Your task to perform on an android device: turn off translation in the chrome app Image 0: 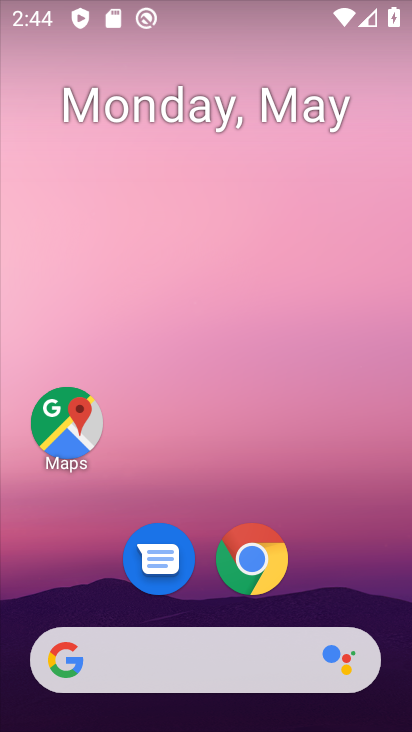
Step 0: drag from (391, 570) to (322, 285)
Your task to perform on an android device: turn off translation in the chrome app Image 1: 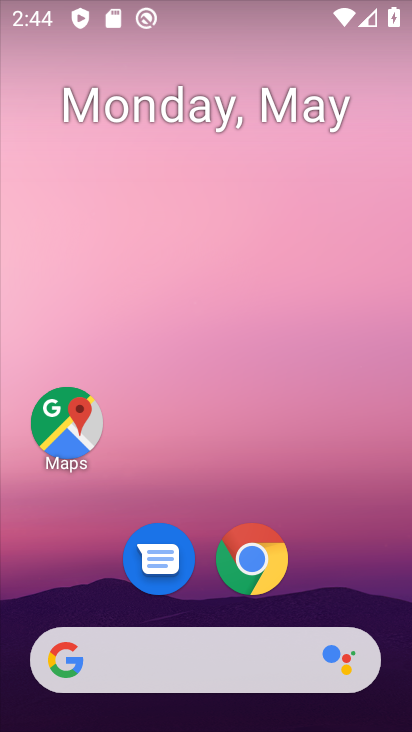
Step 1: drag from (338, 617) to (276, 224)
Your task to perform on an android device: turn off translation in the chrome app Image 2: 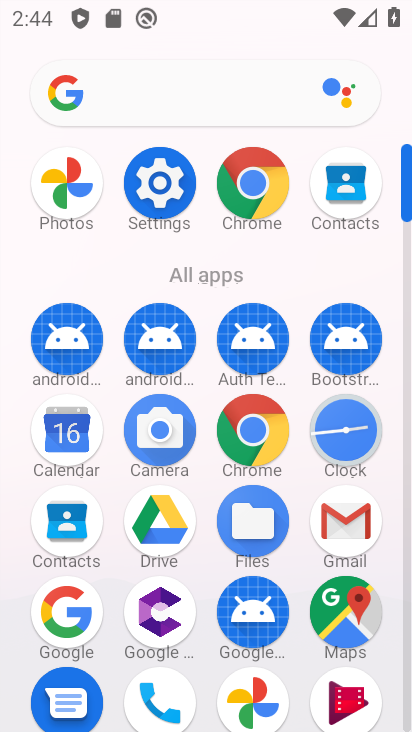
Step 2: click (260, 218)
Your task to perform on an android device: turn off translation in the chrome app Image 3: 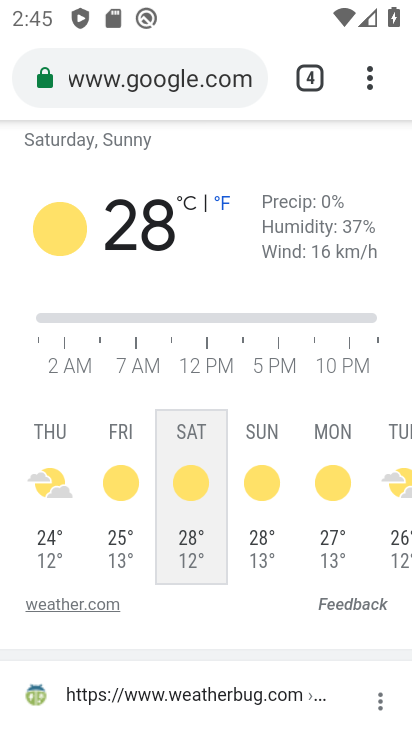
Step 3: click (260, 218)
Your task to perform on an android device: turn off translation in the chrome app Image 4: 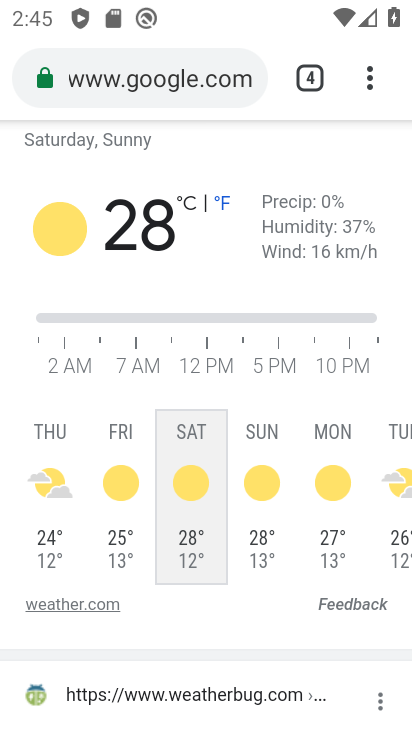
Step 4: click (363, 85)
Your task to perform on an android device: turn off translation in the chrome app Image 5: 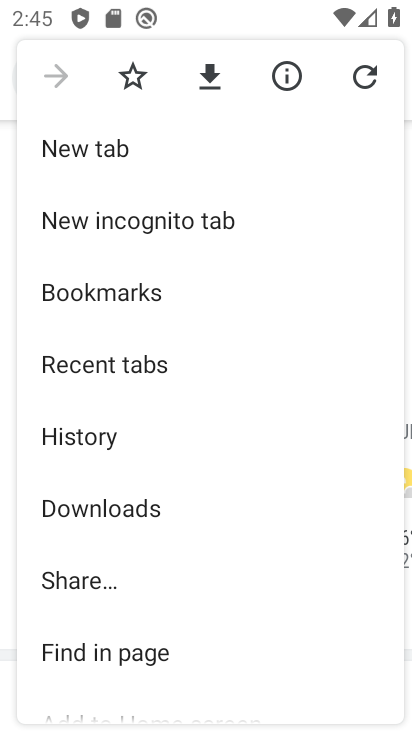
Step 5: click (363, 85)
Your task to perform on an android device: turn off translation in the chrome app Image 6: 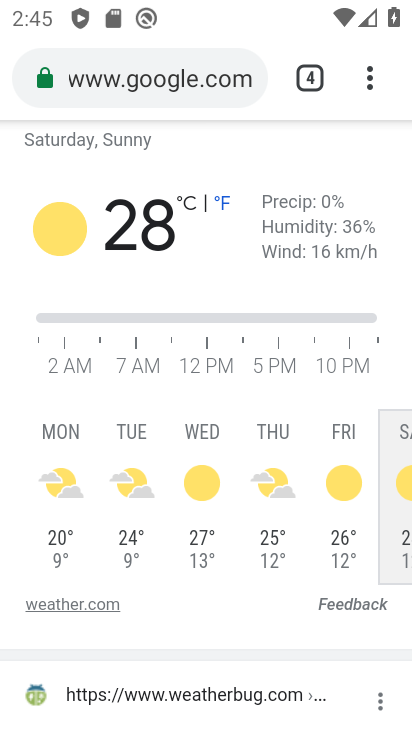
Step 6: click (372, 89)
Your task to perform on an android device: turn off translation in the chrome app Image 7: 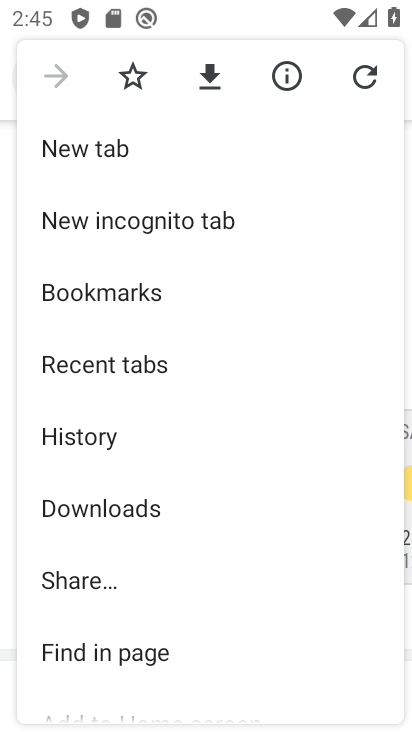
Step 7: drag from (287, 680) to (274, 159)
Your task to perform on an android device: turn off translation in the chrome app Image 8: 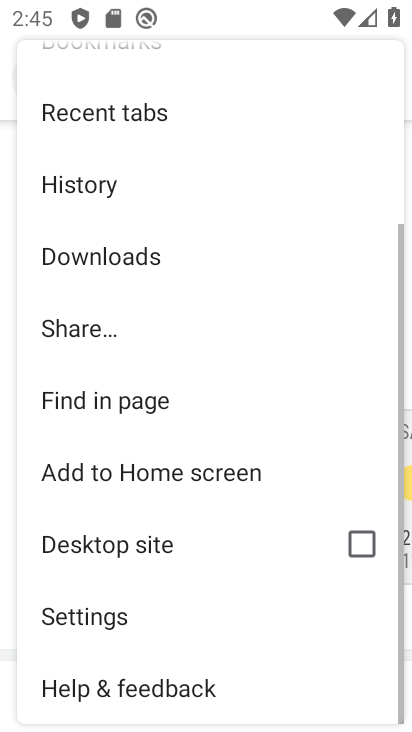
Step 8: click (185, 625)
Your task to perform on an android device: turn off translation in the chrome app Image 9: 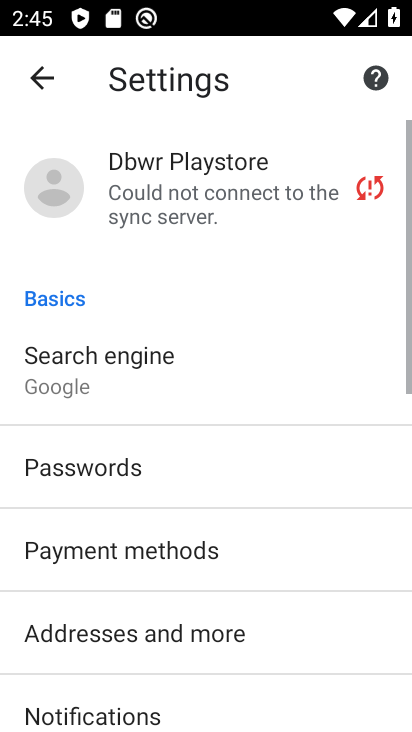
Step 9: drag from (185, 625) to (212, 102)
Your task to perform on an android device: turn off translation in the chrome app Image 10: 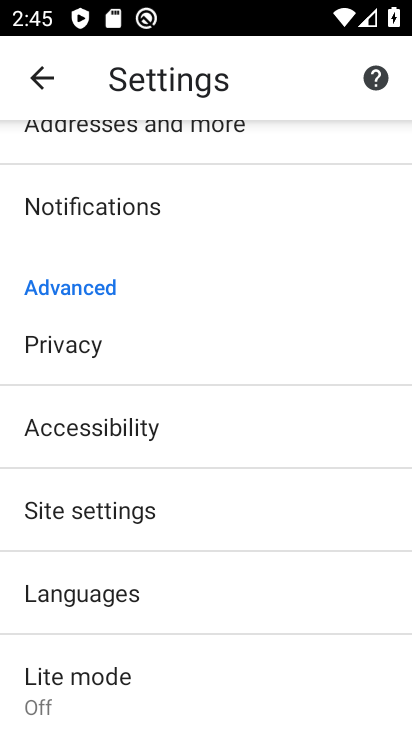
Step 10: click (166, 623)
Your task to perform on an android device: turn off translation in the chrome app Image 11: 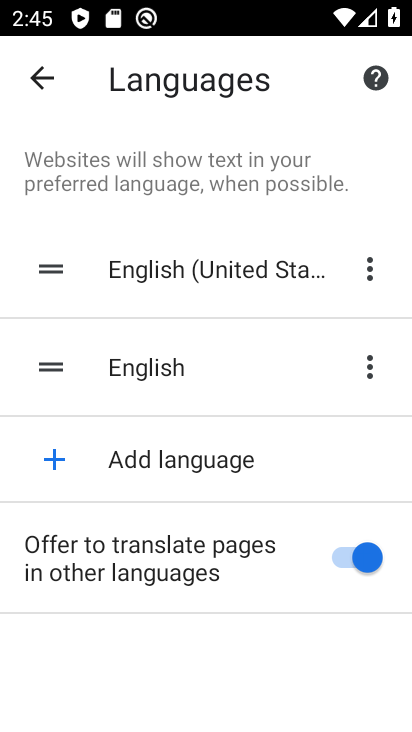
Step 11: click (355, 559)
Your task to perform on an android device: turn off translation in the chrome app Image 12: 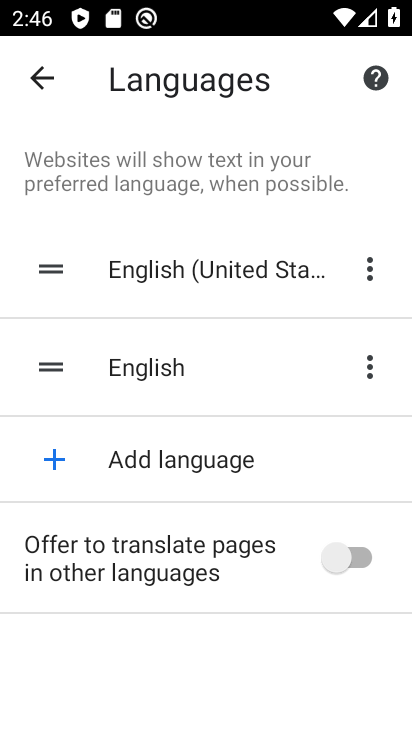
Step 12: task complete